Your task to perform on an android device: Go to sound settings Image 0: 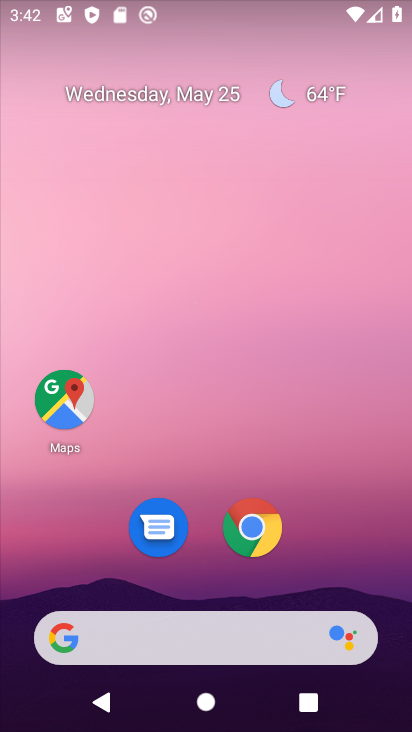
Step 0: drag from (278, 553) to (329, 101)
Your task to perform on an android device: Go to sound settings Image 1: 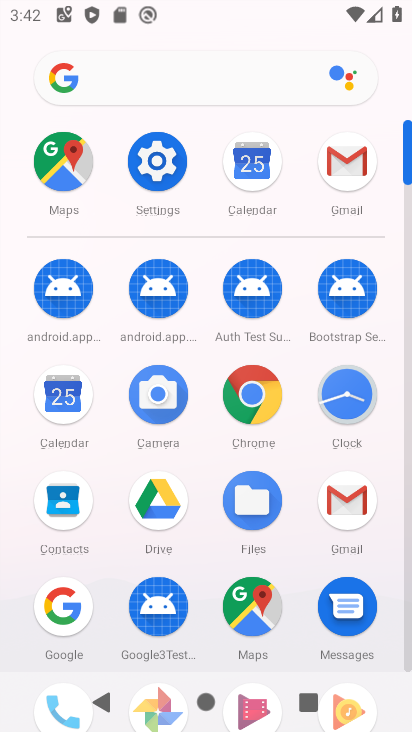
Step 1: click (167, 176)
Your task to perform on an android device: Go to sound settings Image 2: 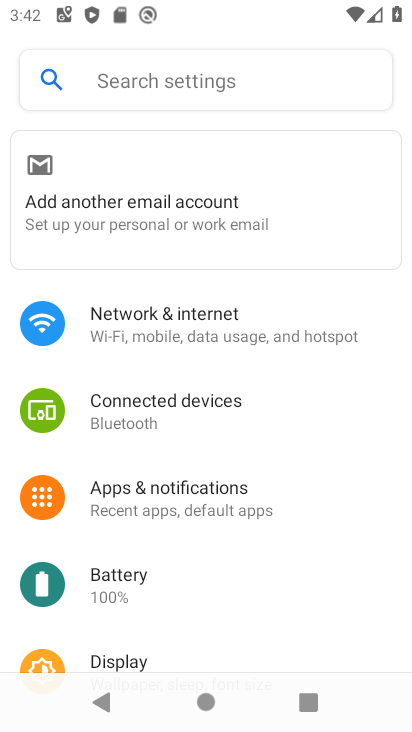
Step 2: drag from (186, 597) to (265, 169)
Your task to perform on an android device: Go to sound settings Image 3: 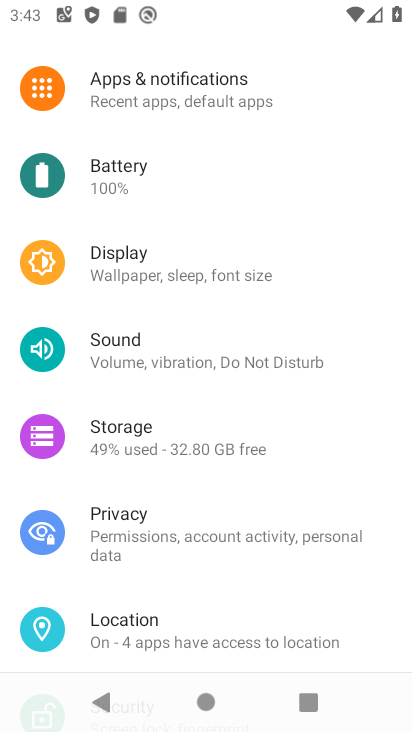
Step 3: click (139, 335)
Your task to perform on an android device: Go to sound settings Image 4: 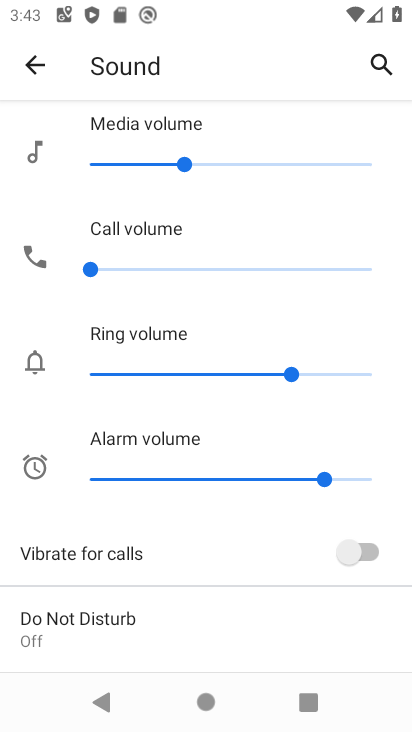
Step 4: task complete